Your task to perform on an android device: Show me recent news Image 0: 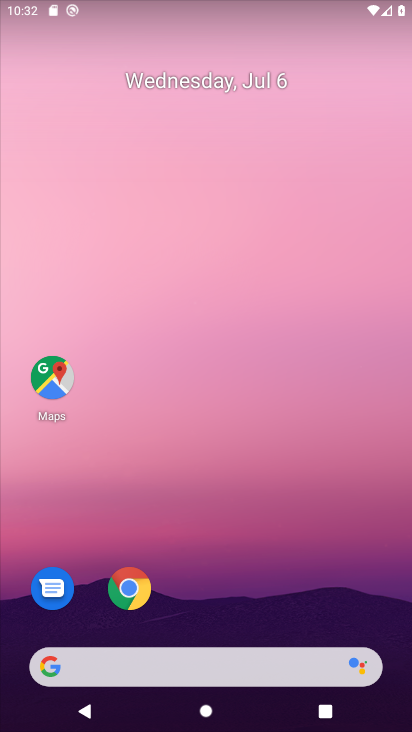
Step 0: drag from (298, 586) to (289, 474)
Your task to perform on an android device: Show me recent news Image 1: 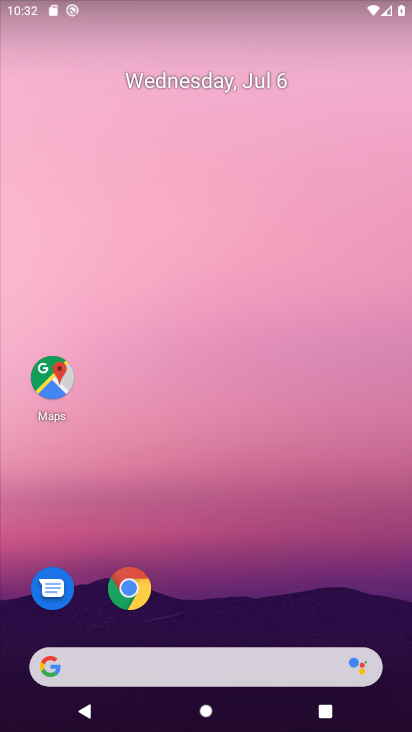
Step 1: task complete